Your task to perform on an android device: Go to Wikipedia Image 0: 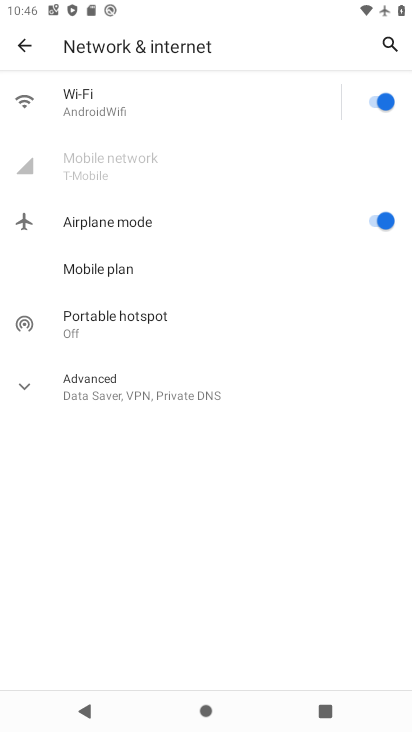
Step 0: press home button
Your task to perform on an android device: Go to Wikipedia Image 1: 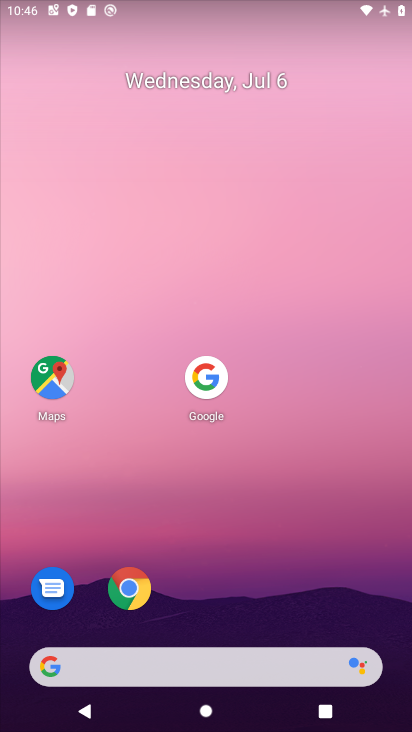
Step 1: click (130, 584)
Your task to perform on an android device: Go to Wikipedia Image 2: 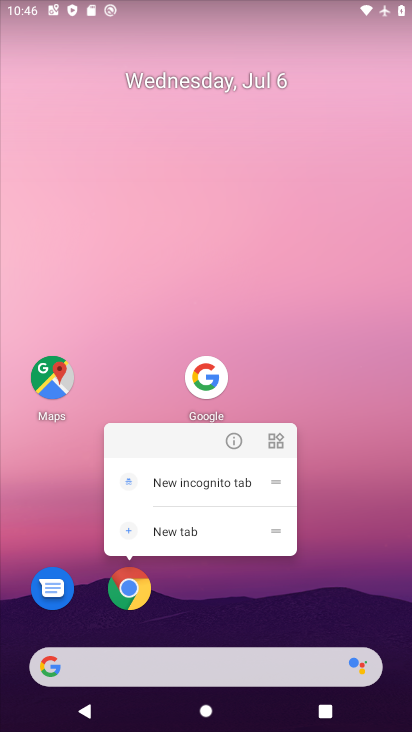
Step 2: click (130, 583)
Your task to perform on an android device: Go to Wikipedia Image 3: 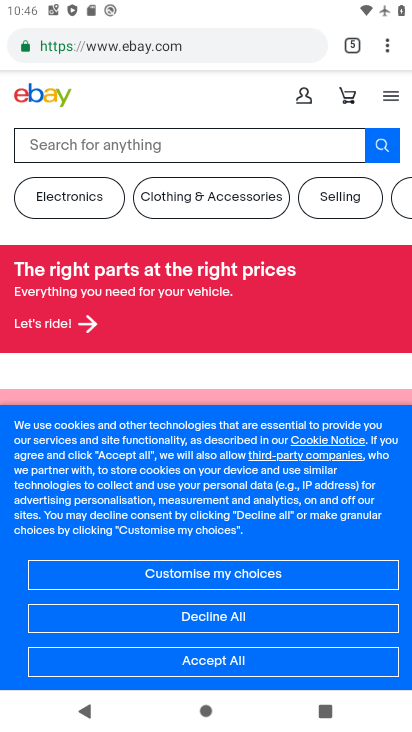
Step 3: click (384, 59)
Your task to perform on an android device: Go to Wikipedia Image 4: 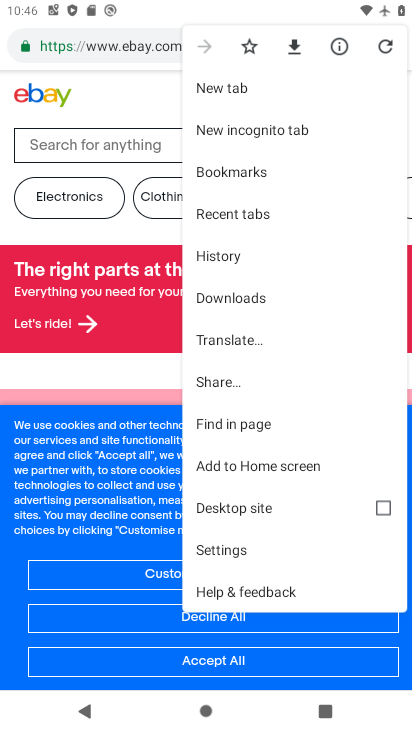
Step 4: click (232, 87)
Your task to perform on an android device: Go to Wikipedia Image 5: 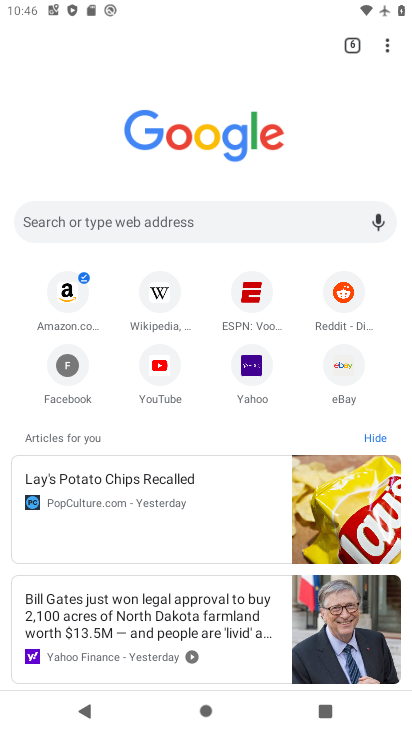
Step 5: click (154, 315)
Your task to perform on an android device: Go to Wikipedia Image 6: 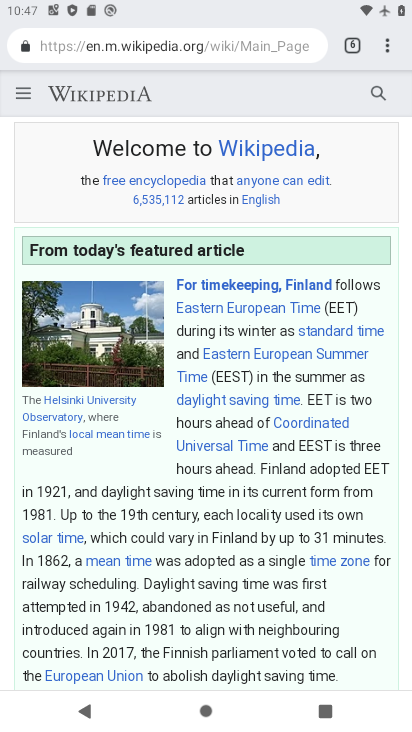
Step 6: task complete